Your task to perform on an android device: add a contact Image 0: 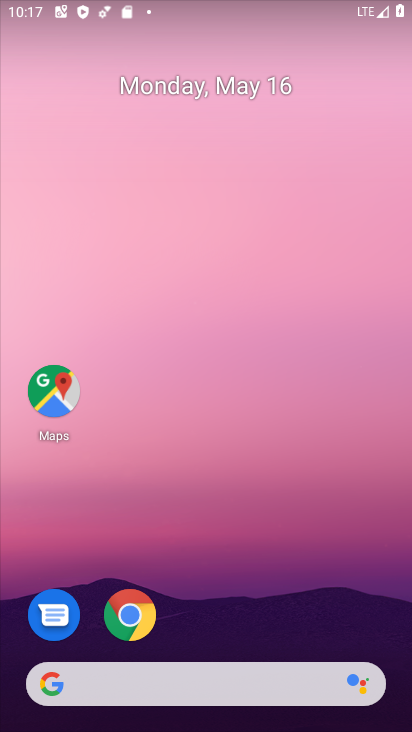
Step 0: drag from (236, 640) to (277, 152)
Your task to perform on an android device: add a contact Image 1: 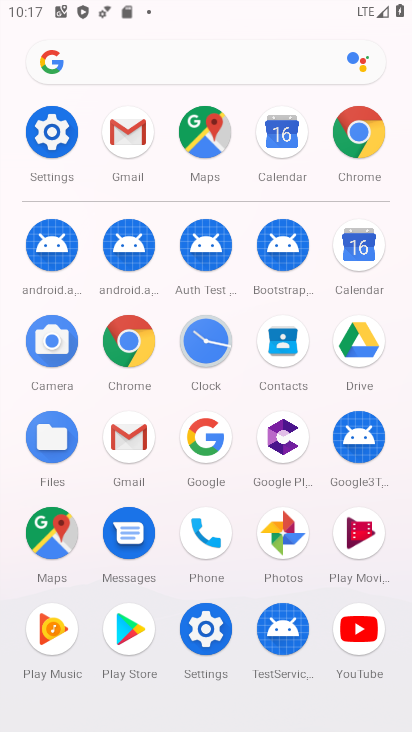
Step 1: drag from (229, 494) to (231, 352)
Your task to perform on an android device: add a contact Image 2: 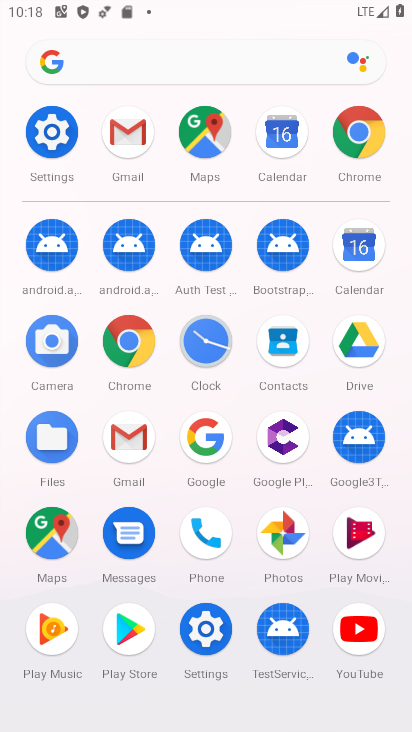
Step 2: drag from (230, 433) to (250, 632)
Your task to perform on an android device: add a contact Image 3: 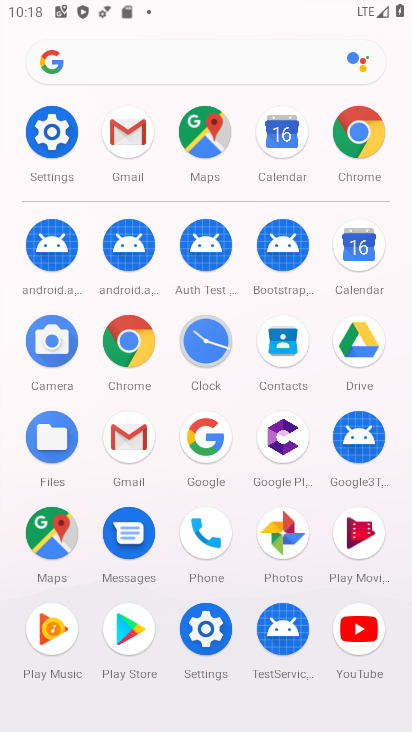
Step 3: drag from (225, 526) to (254, 245)
Your task to perform on an android device: add a contact Image 4: 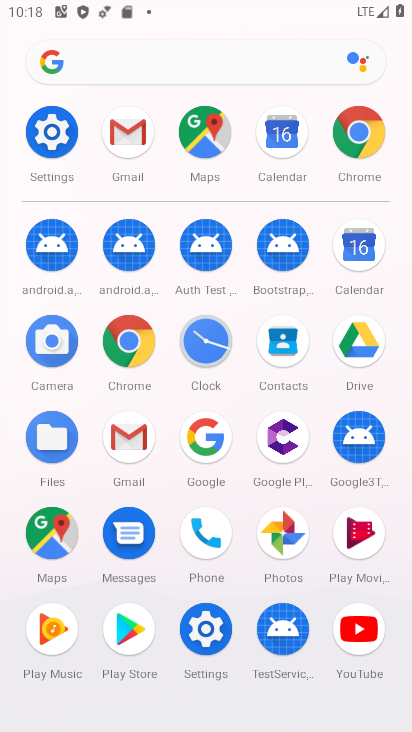
Step 4: click (296, 360)
Your task to perform on an android device: add a contact Image 5: 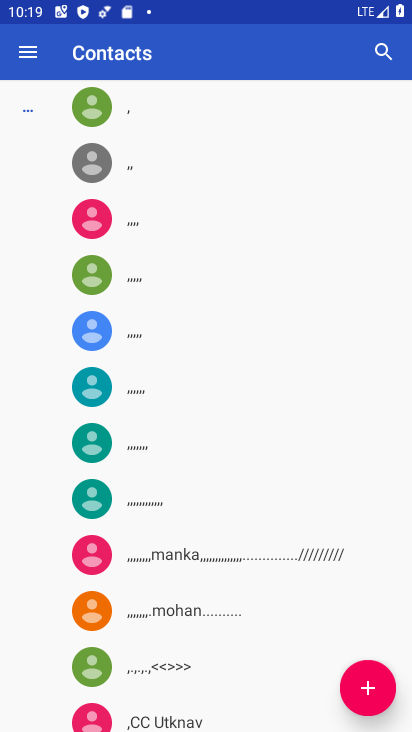
Step 5: click (380, 673)
Your task to perform on an android device: add a contact Image 6: 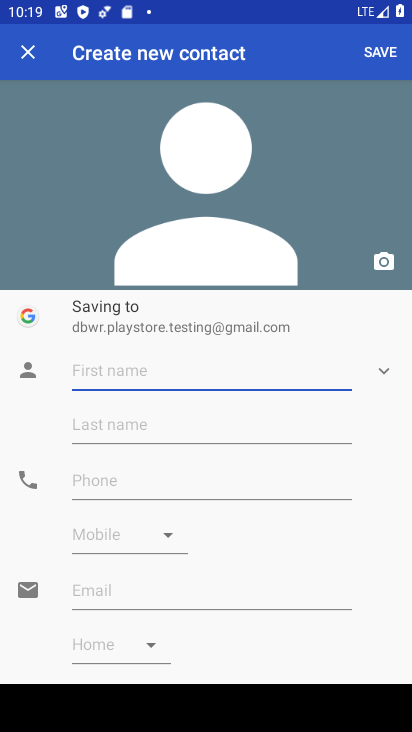
Step 6: type "vhgi"
Your task to perform on an android device: add a contact Image 7: 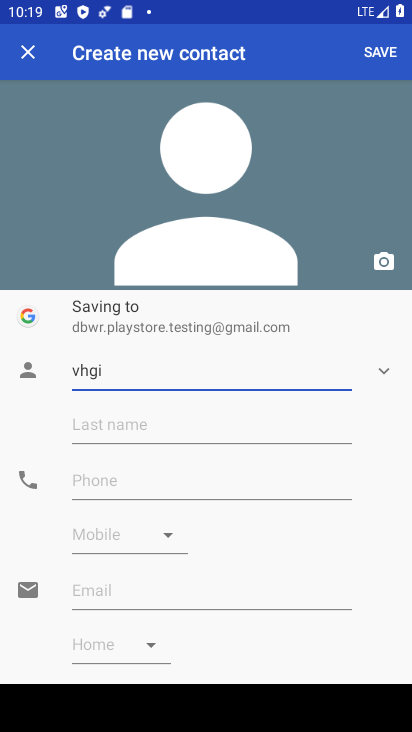
Step 7: click (219, 490)
Your task to perform on an android device: add a contact Image 8: 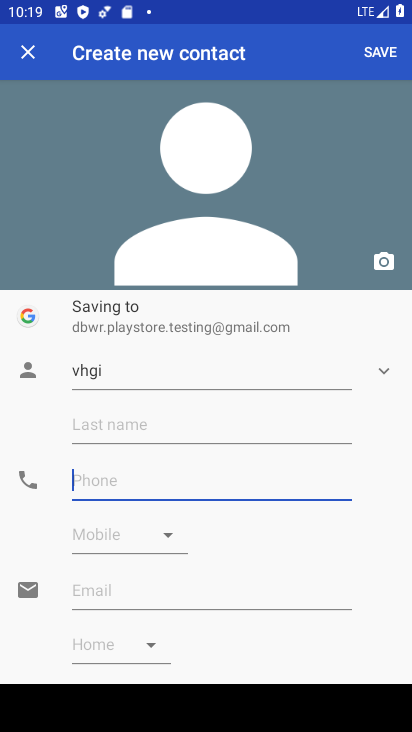
Step 8: type "09867095"
Your task to perform on an android device: add a contact Image 9: 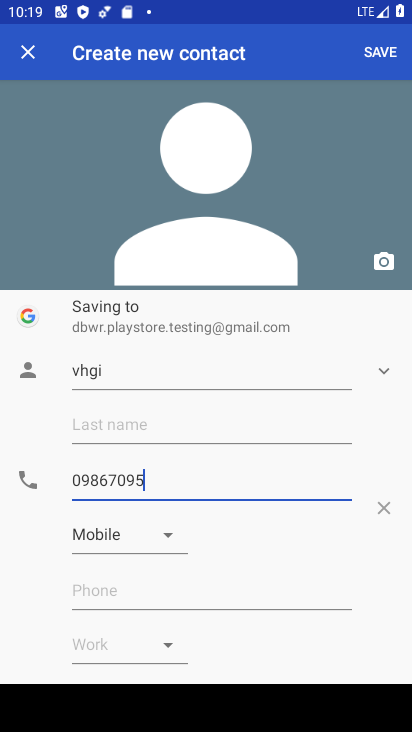
Step 9: click (372, 43)
Your task to perform on an android device: add a contact Image 10: 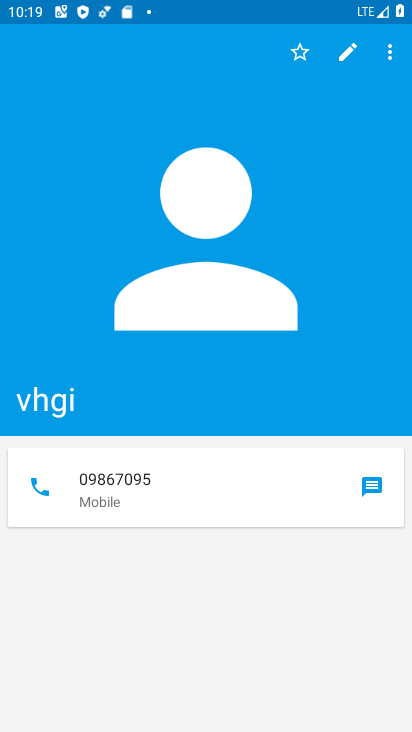
Step 10: task complete